Your task to perform on an android device: empty trash in google photos Image 0: 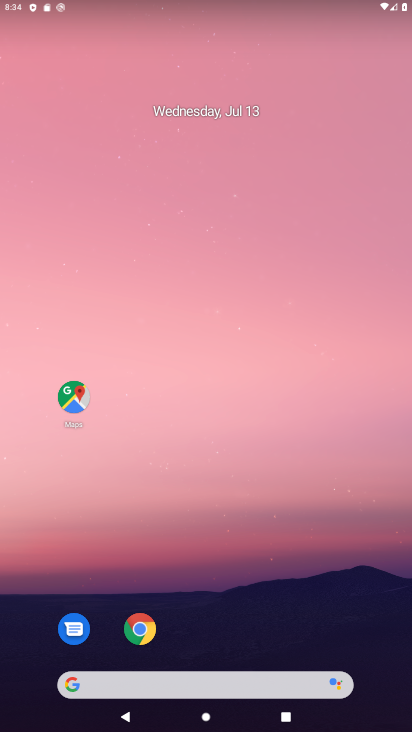
Step 0: drag from (291, 573) to (263, 21)
Your task to perform on an android device: empty trash in google photos Image 1: 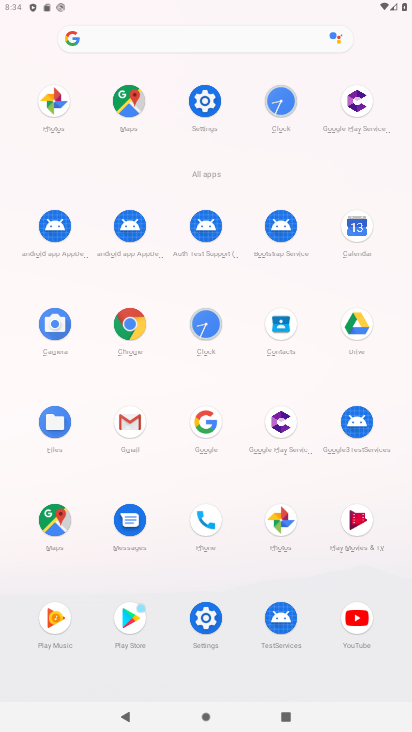
Step 1: click (283, 518)
Your task to perform on an android device: empty trash in google photos Image 2: 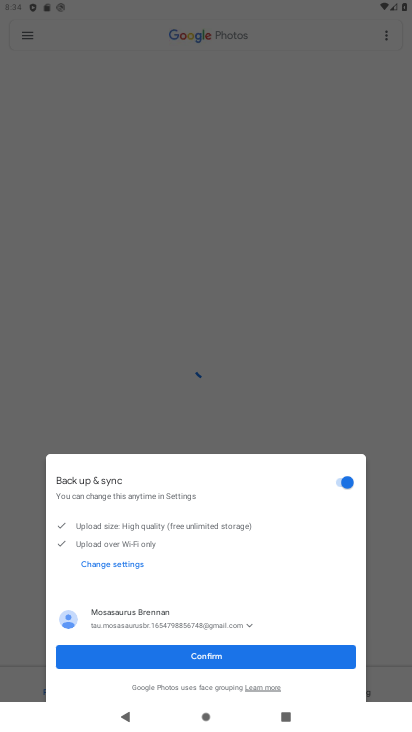
Step 2: click (251, 655)
Your task to perform on an android device: empty trash in google photos Image 3: 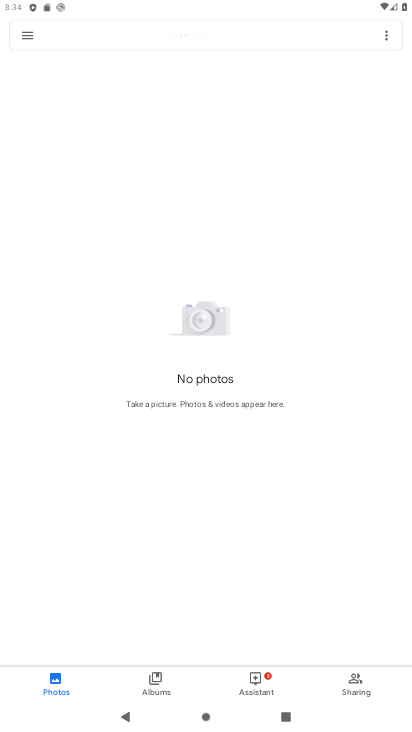
Step 3: click (32, 28)
Your task to perform on an android device: empty trash in google photos Image 4: 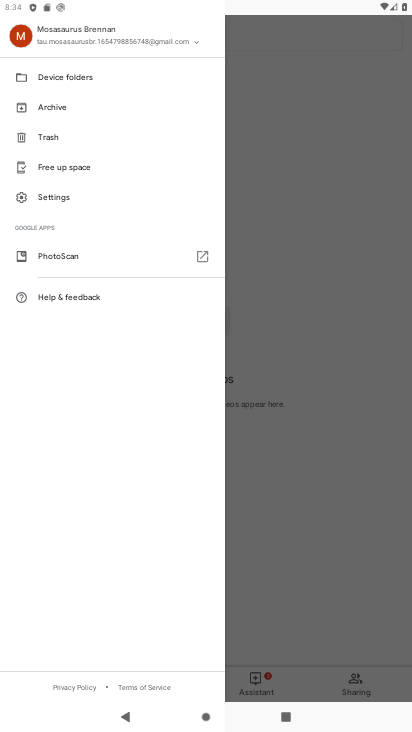
Step 4: click (33, 132)
Your task to perform on an android device: empty trash in google photos Image 5: 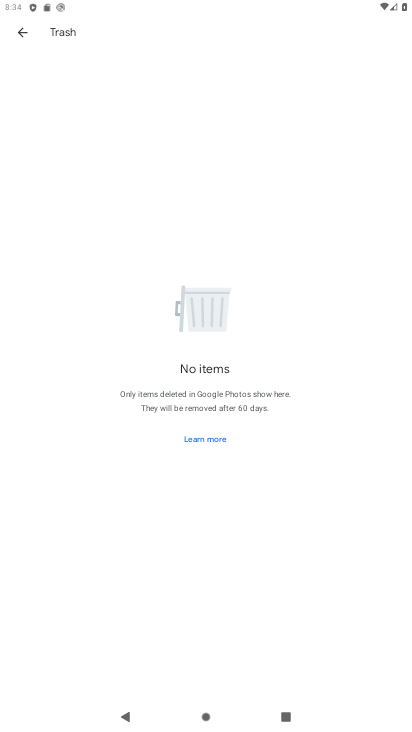
Step 5: task complete